Your task to perform on an android device: turn on airplane mode Image 0: 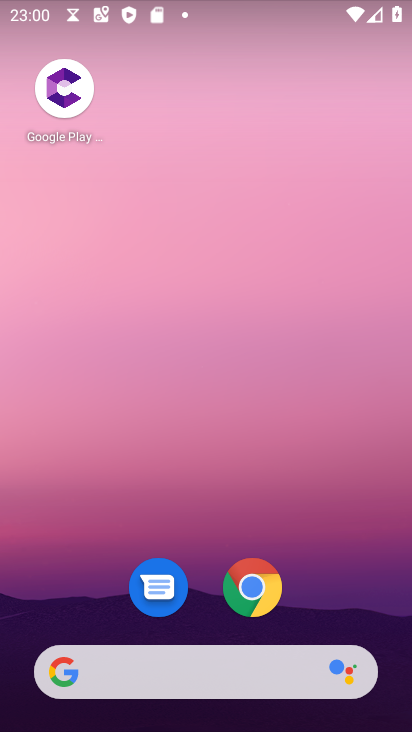
Step 0: drag from (314, 551) to (176, 1)
Your task to perform on an android device: turn on airplane mode Image 1: 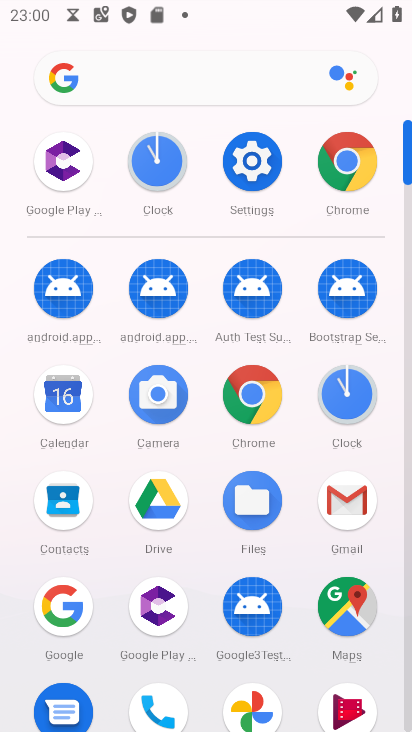
Step 1: drag from (24, 530) to (17, 376)
Your task to perform on an android device: turn on airplane mode Image 2: 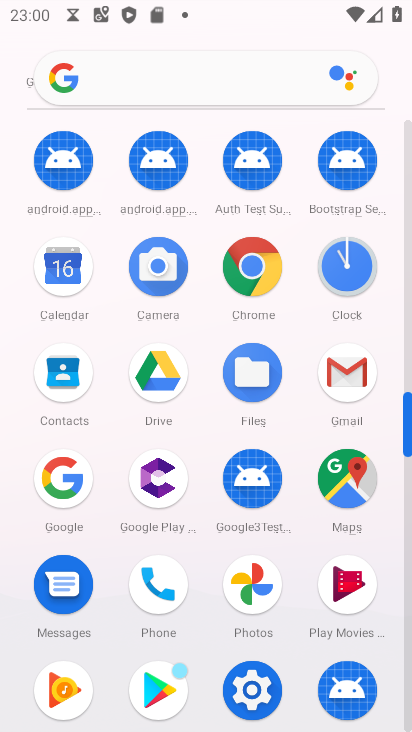
Step 2: drag from (9, 571) to (0, 290)
Your task to perform on an android device: turn on airplane mode Image 3: 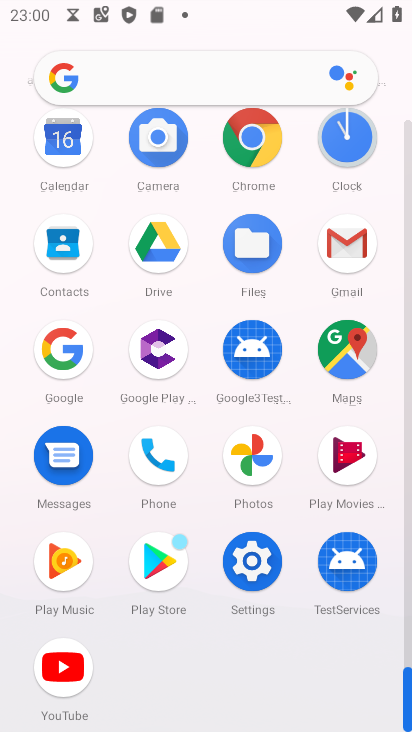
Step 3: click (252, 557)
Your task to perform on an android device: turn on airplane mode Image 4: 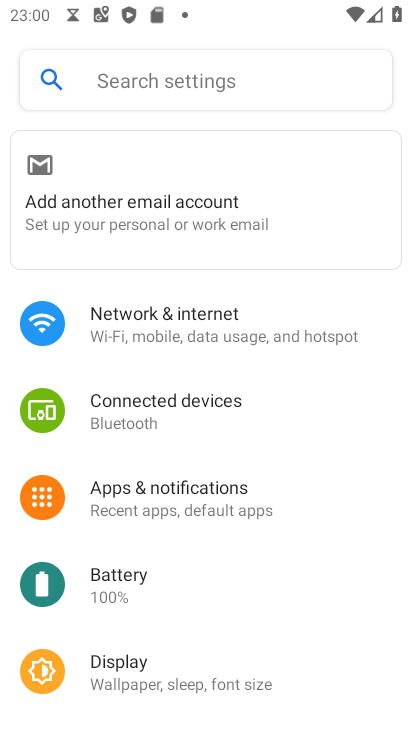
Step 4: drag from (314, 545) to (280, 161)
Your task to perform on an android device: turn on airplane mode Image 5: 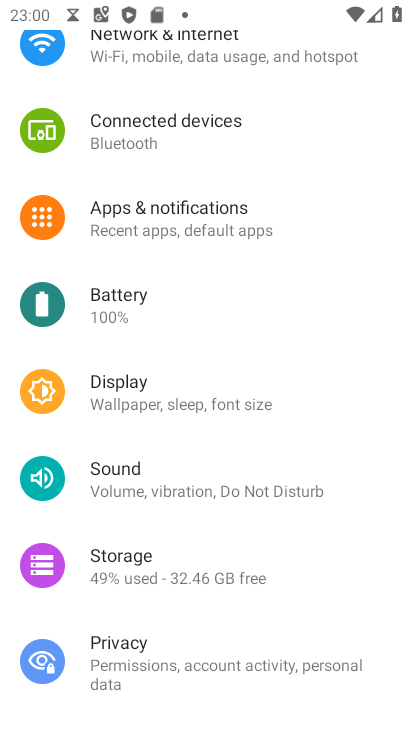
Step 5: drag from (280, 155) to (275, 491)
Your task to perform on an android device: turn on airplane mode Image 6: 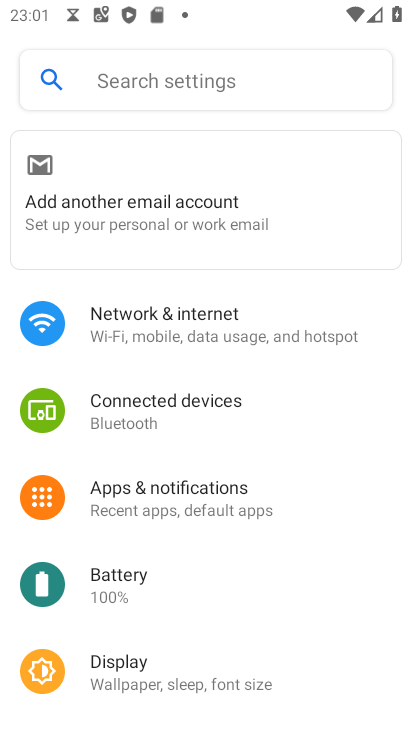
Step 6: click (210, 347)
Your task to perform on an android device: turn on airplane mode Image 7: 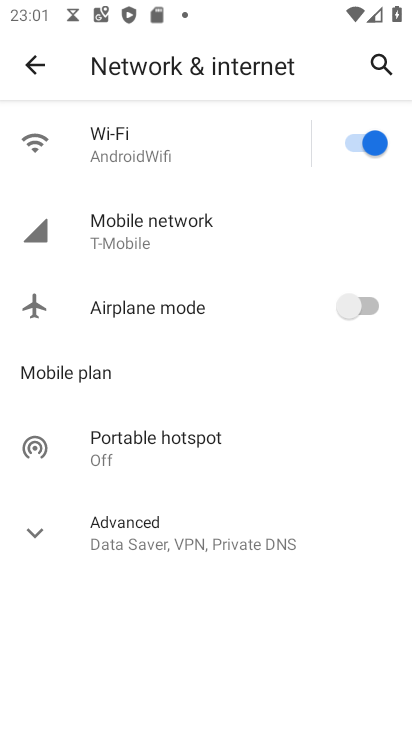
Step 7: click (48, 530)
Your task to perform on an android device: turn on airplane mode Image 8: 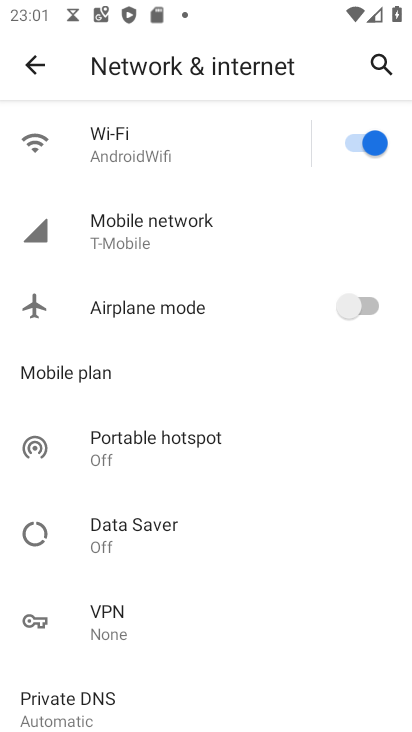
Step 8: click (350, 306)
Your task to perform on an android device: turn on airplane mode Image 9: 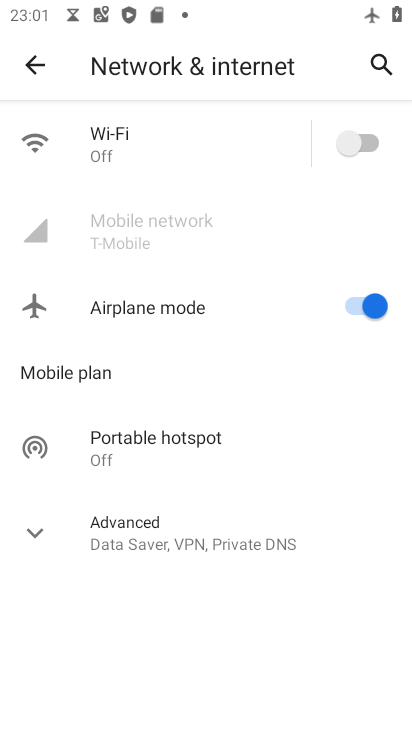
Step 9: task complete